Your task to perform on an android device: Open Maps and search for coffee Image 0: 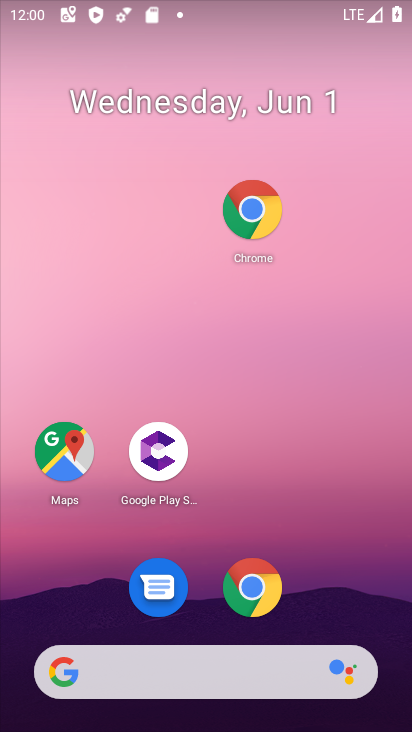
Step 0: click (63, 462)
Your task to perform on an android device: Open Maps and search for coffee Image 1: 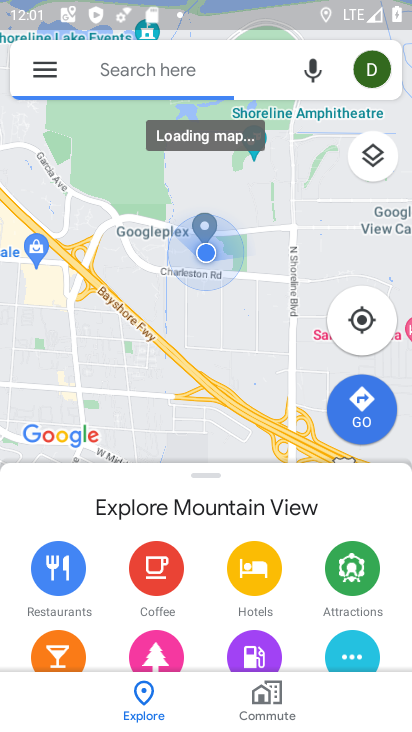
Step 1: click (164, 81)
Your task to perform on an android device: Open Maps and search for coffee Image 2: 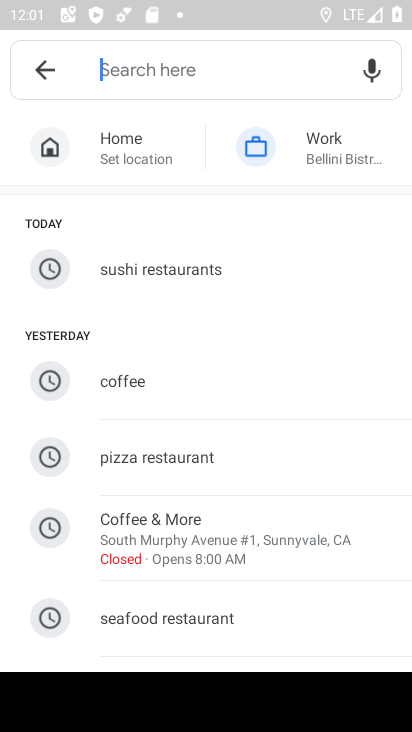
Step 2: click (182, 382)
Your task to perform on an android device: Open Maps and search for coffee Image 3: 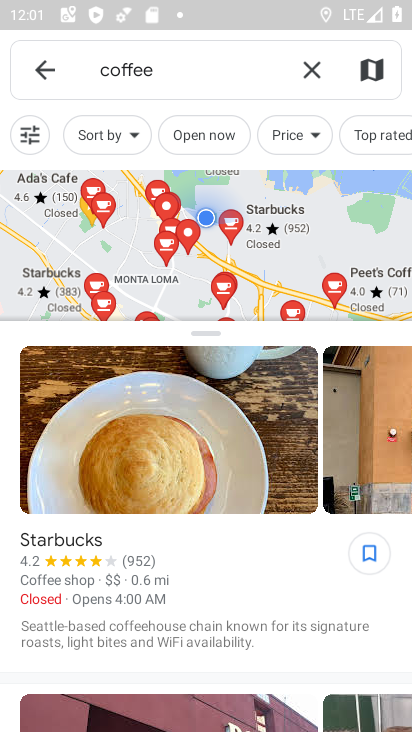
Step 3: task complete